Your task to perform on an android device: clear all cookies in the chrome app Image 0: 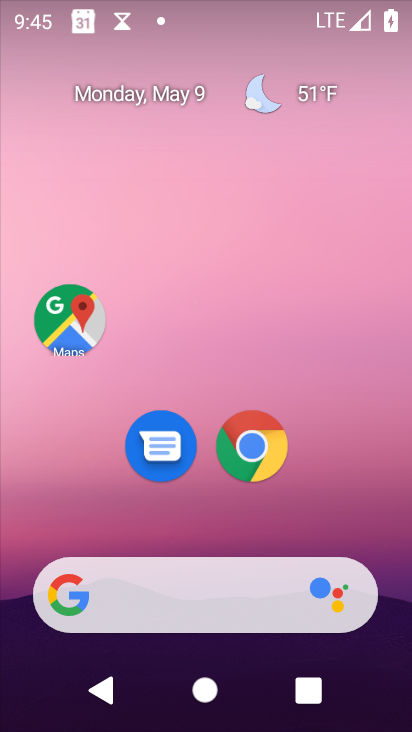
Step 0: click (256, 448)
Your task to perform on an android device: clear all cookies in the chrome app Image 1: 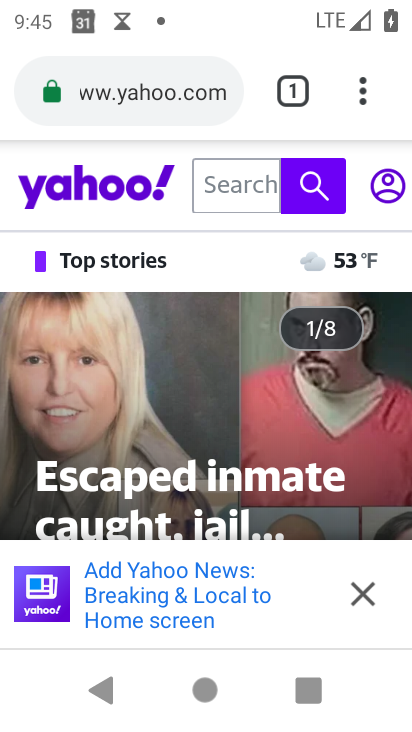
Step 1: click (365, 88)
Your task to perform on an android device: clear all cookies in the chrome app Image 2: 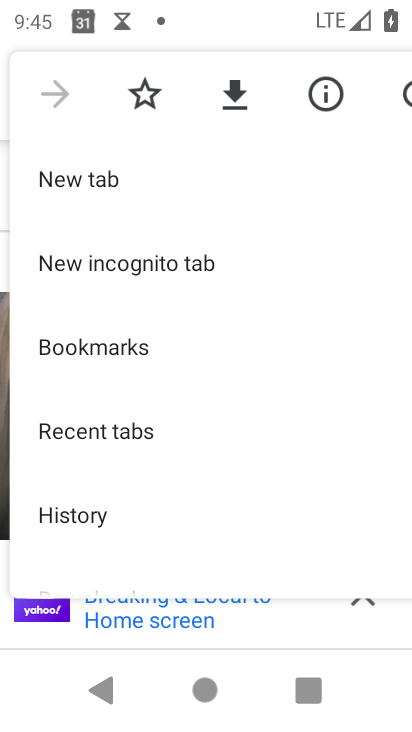
Step 2: drag from (215, 543) to (215, 445)
Your task to perform on an android device: clear all cookies in the chrome app Image 3: 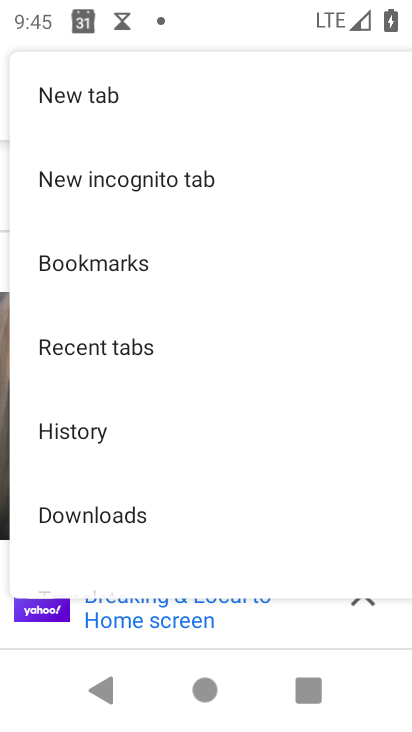
Step 3: click (72, 423)
Your task to perform on an android device: clear all cookies in the chrome app Image 4: 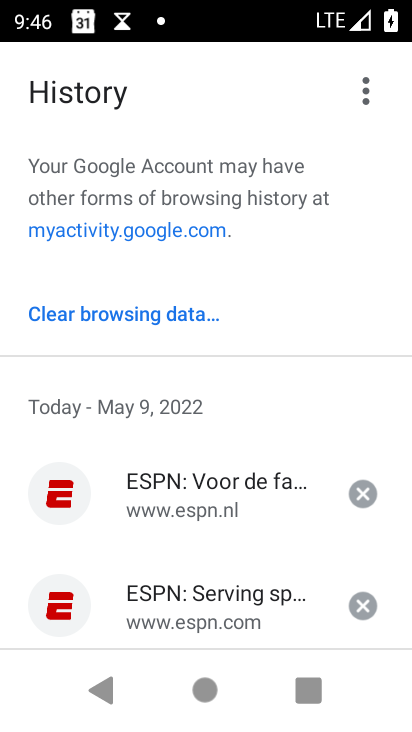
Step 4: click (183, 323)
Your task to perform on an android device: clear all cookies in the chrome app Image 5: 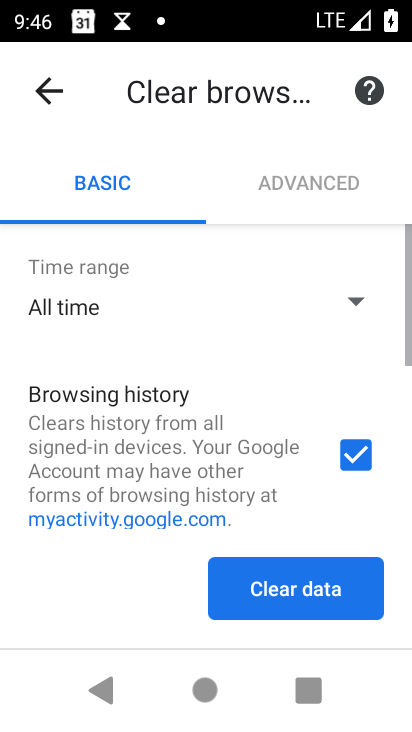
Step 5: drag from (263, 490) to (262, 265)
Your task to perform on an android device: clear all cookies in the chrome app Image 6: 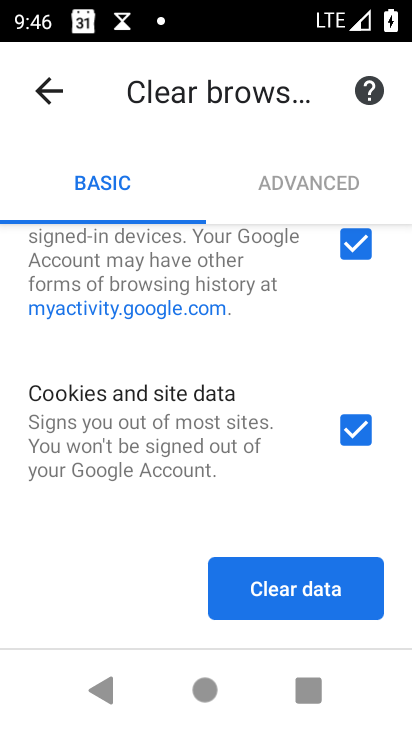
Step 6: click (308, 590)
Your task to perform on an android device: clear all cookies in the chrome app Image 7: 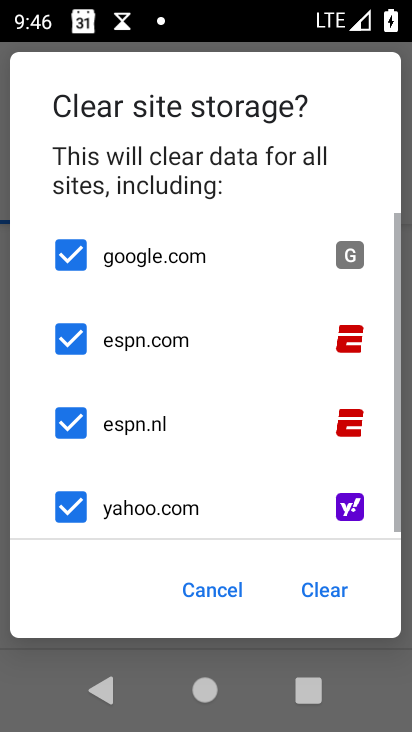
Step 7: click (331, 583)
Your task to perform on an android device: clear all cookies in the chrome app Image 8: 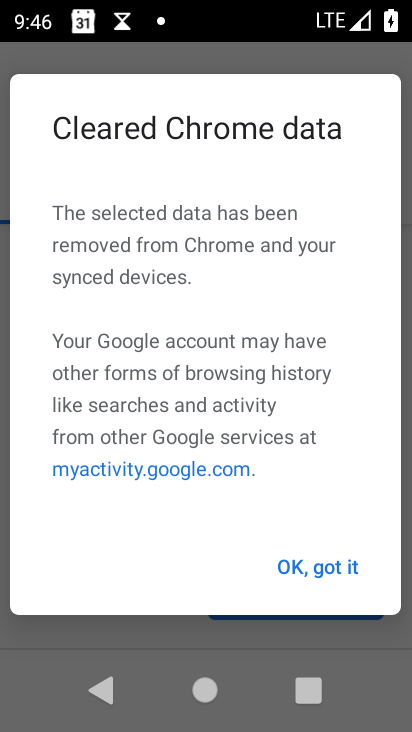
Step 8: click (345, 568)
Your task to perform on an android device: clear all cookies in the chrome app Image 9: 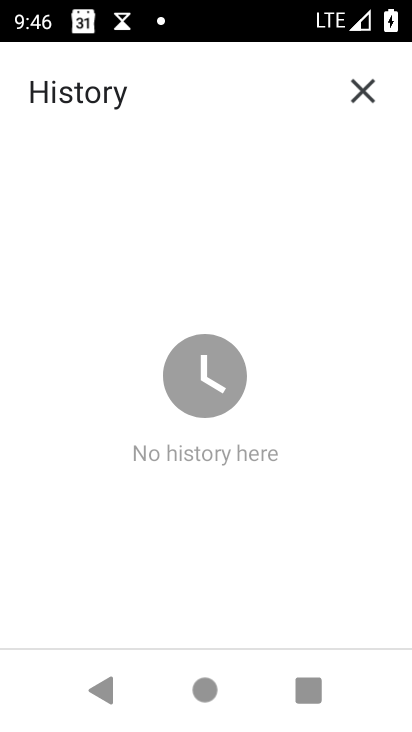
Step 9: task complete